Your task to perform on an android device: turn on translation in the chrome app Image 0: 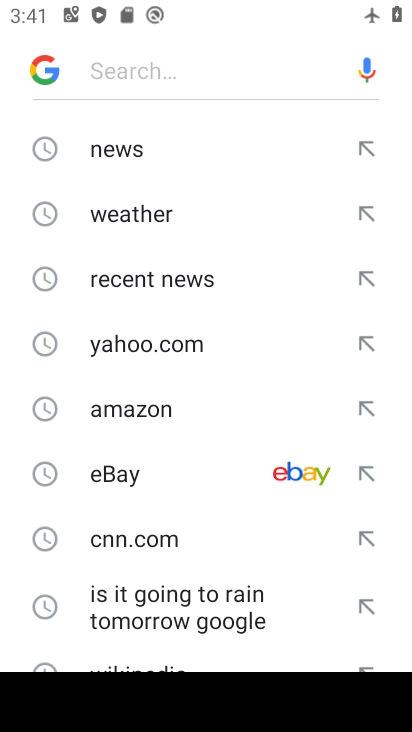
Step 0: press home button
Your task to perform on an android device: turn on translation in the chrome app Image 1: 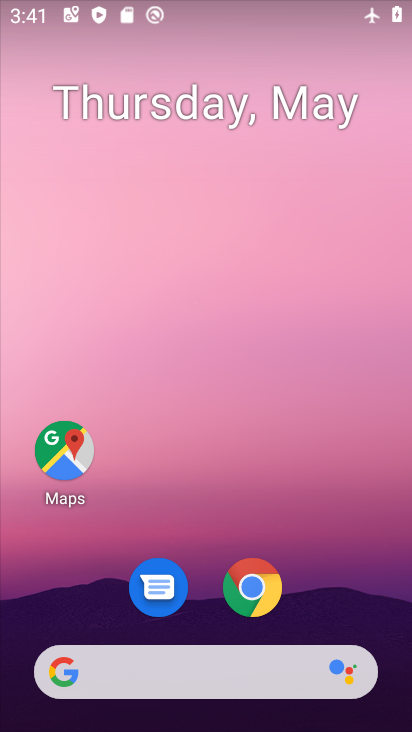
Step 1: click (235, 580)
Your task to perform on an android device: turn on translation in the chrome app Image 2: 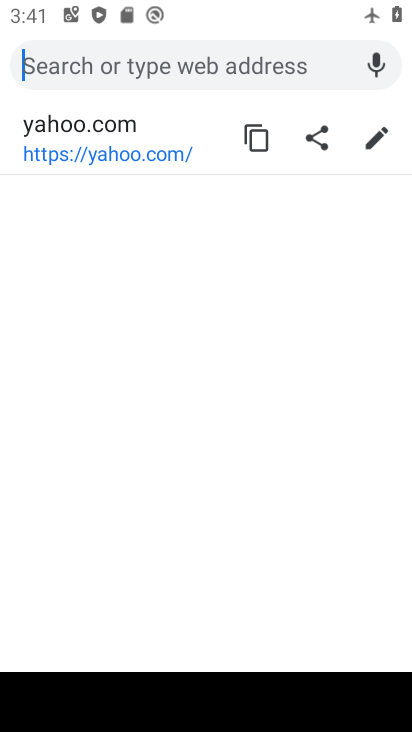
Step 2: press back button
Your task to perform on an android device: turn on translation in the chrome app Image 3: 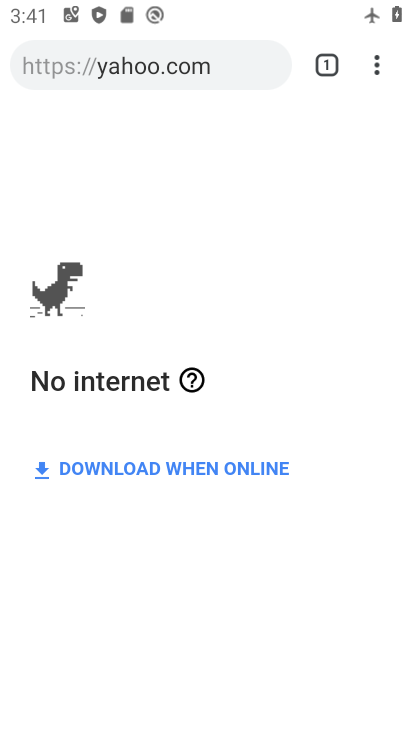
Step 3: click (378, 62)
Your task to perform on an android device: turn on translation in the chrome app Image 4: 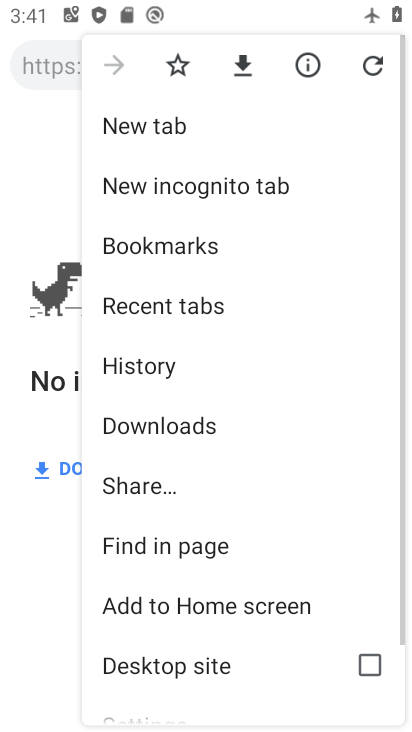
Step 4: task complete